Your task to perform on an android device: turn on wifi Image 0: 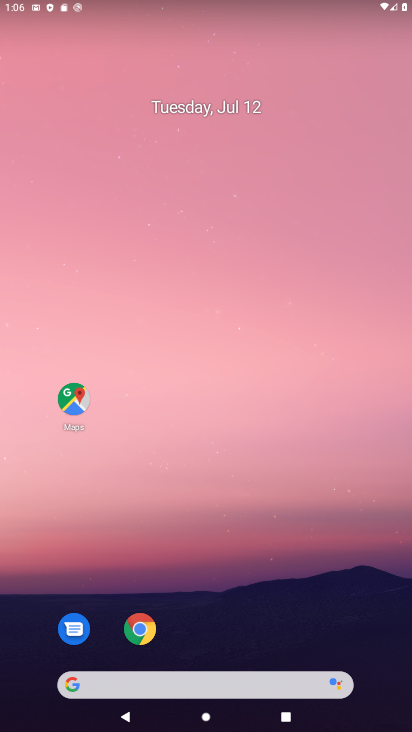
Step 0: drag from (275, 585) to (185, 149)
Your task to perform on an android device: turn on wifi Image 1: 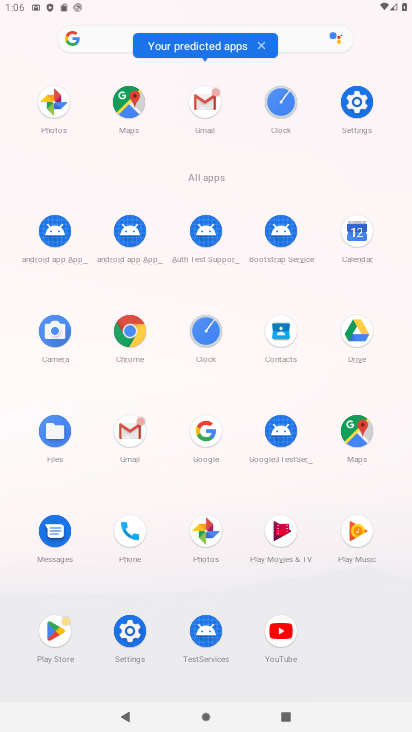
Step 1: click (354, 104)
Your task to perform on an android device: turn on wifi Image 2: 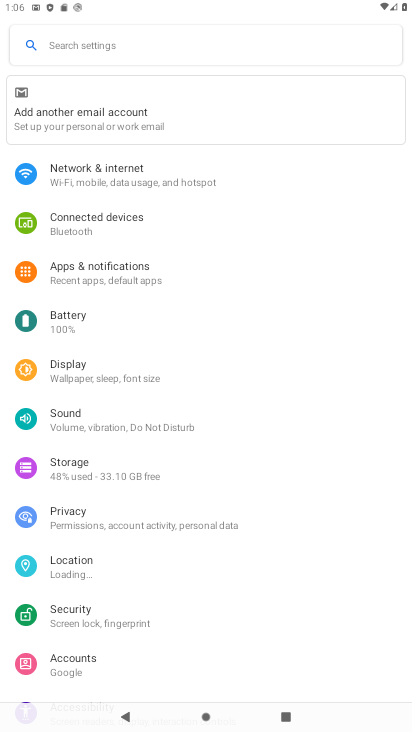
Step 2: click (92, 173)
Your task to perform on an android device: turn on wifi Image 3: 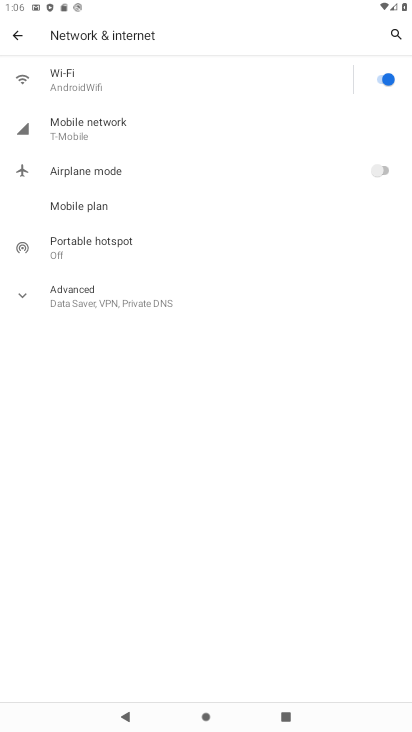
Step 3: task complete